Your task to perform on an android device: turn off airplane mode Image 0: 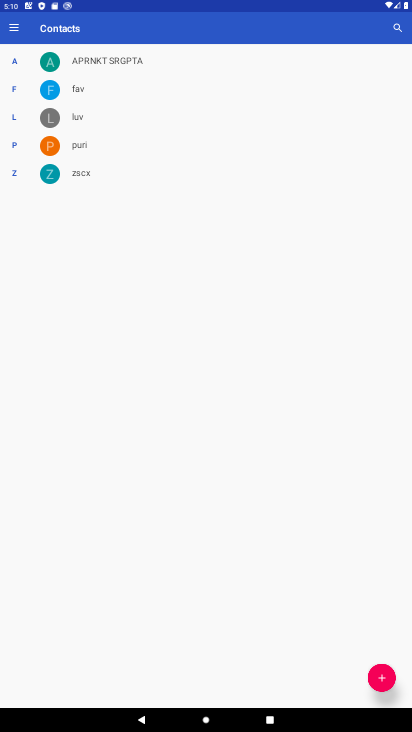
Step 0: press home button
Your task to perform on an android device: turn off airplane mode Image 1: 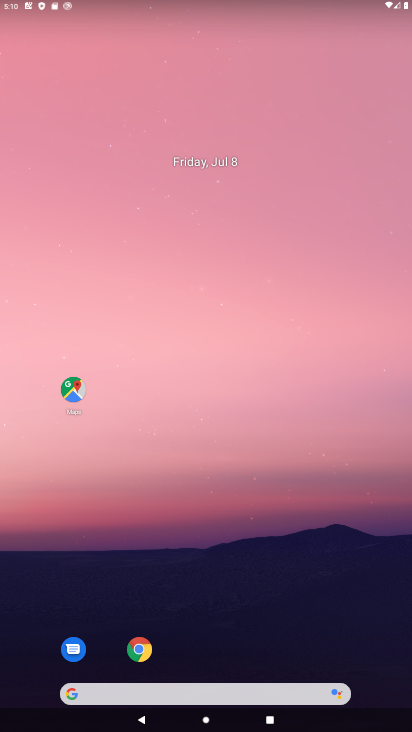
Step 1: drag from (294, 596) to (213, 28)
Your task to perform on an android device: turn off airplane mode Image 2: 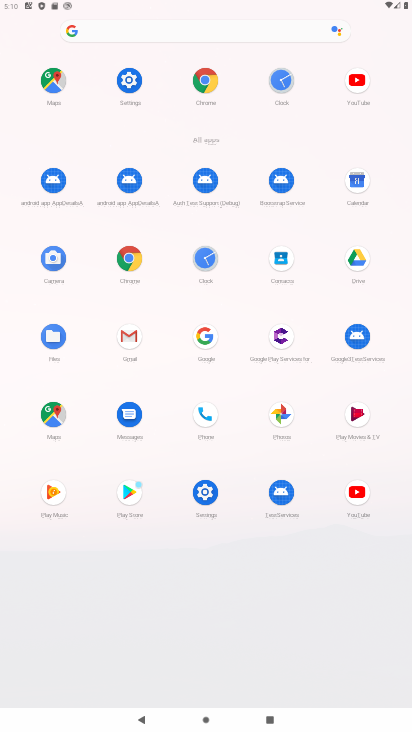
Step 2: click (131, 75)
Your task to perform on an android device: turn off airplane mode Image 3: 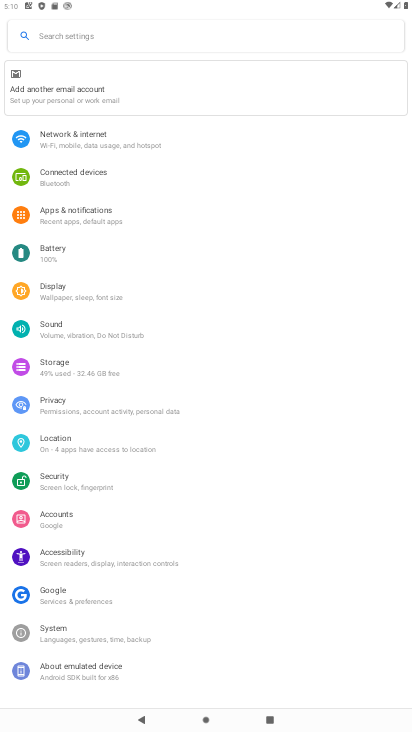
Step 3: click (107, 135)
Your task to perform on an android device: turn off airplane mode Image 4: 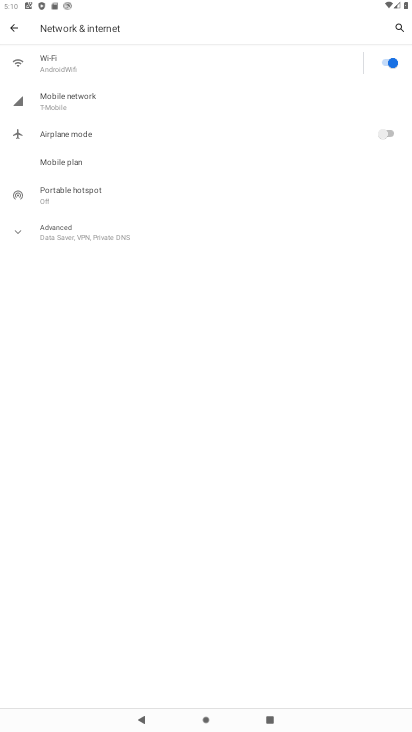
Step 4: task complete